Your task to perform on an android device: open a new tab in the chrome app Image 0: 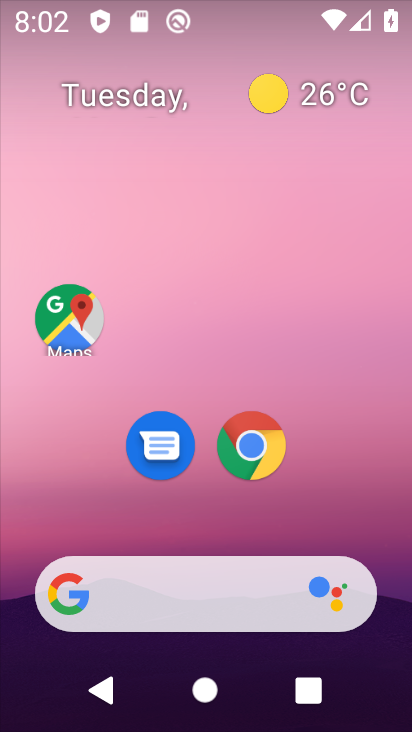
Step 0: click (251, 448)
Your task to perform on an android device: open a new tab in the chrome app Image 1: 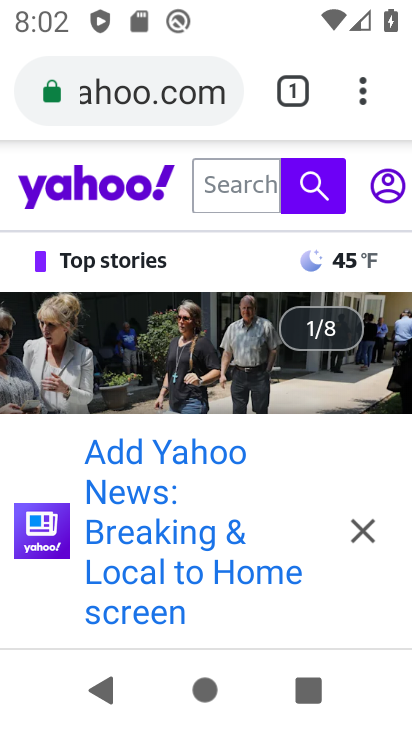
Step 1: click (361, 92)
Your task to perform on an android device: open a new tab in the chrome app Image 2: 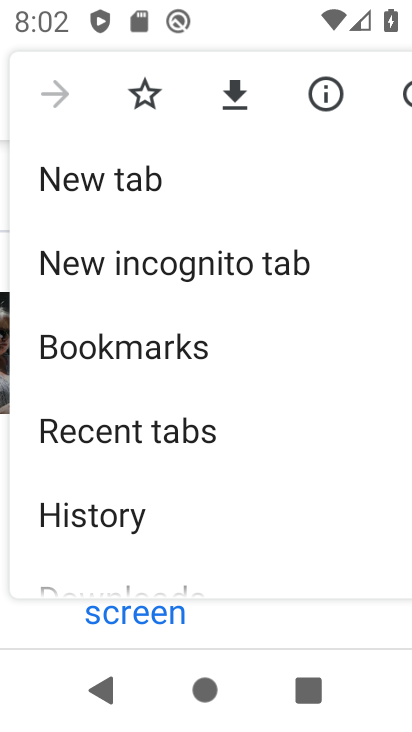
Step 2: click (148, 182)
Your task to perform on an android device: open a new tab in the chrome app Image 3: 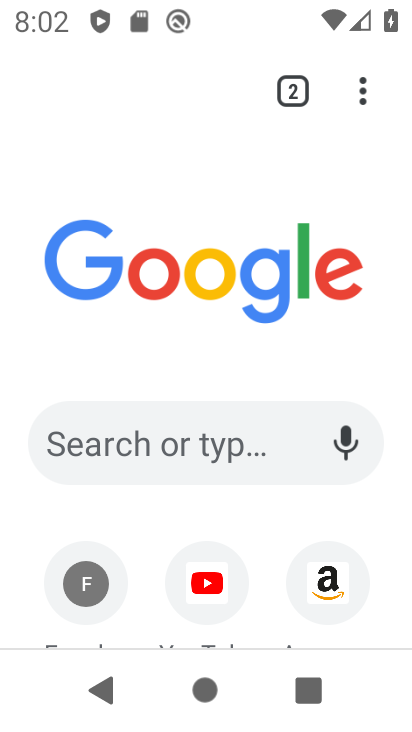
Step 3: task complete